Your task to perform on an android device: Go to privacy settings Image 0: 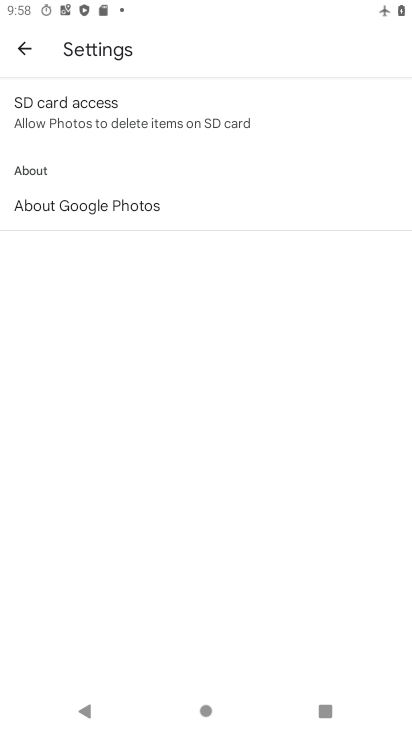
Step 0: press home button
Your task to perform on an android device: Go to privacy settings Image 1: 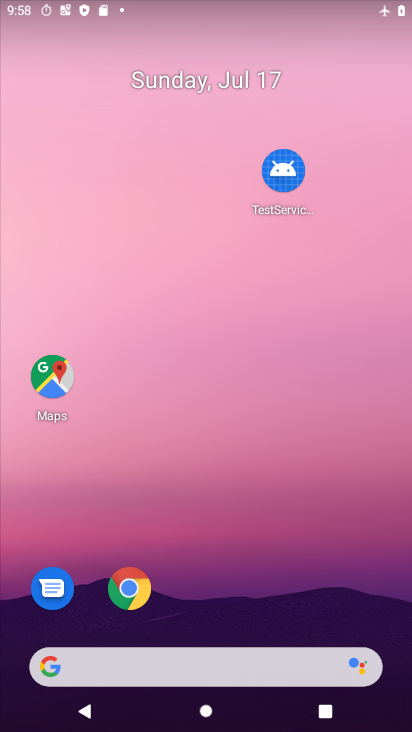
Step 1: drag from (301, 656) to (305, 333)
Your task to perform on an android device: Go to privacy settings Image 2: 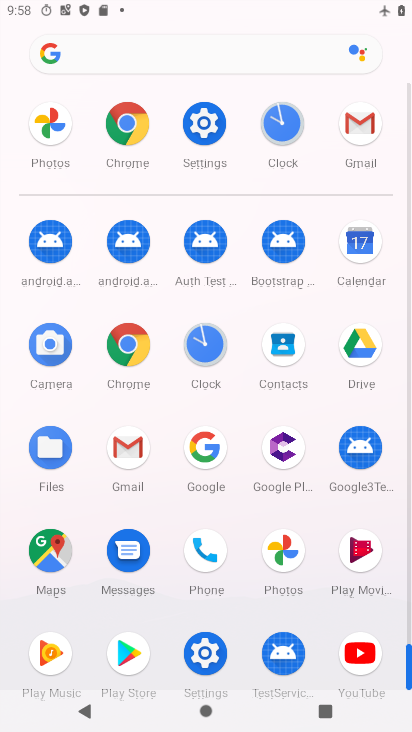
Step 2: click (215, 155)
Your task to perform on an android device: Go to privacy settings Image 3: 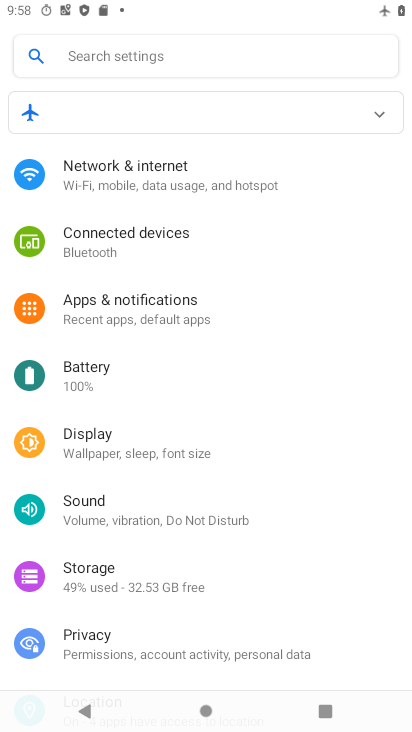
Step 3: drag from (175, 501) to (191, 323)
Your task to perform on an android device: Go to privacy settings Image 4: 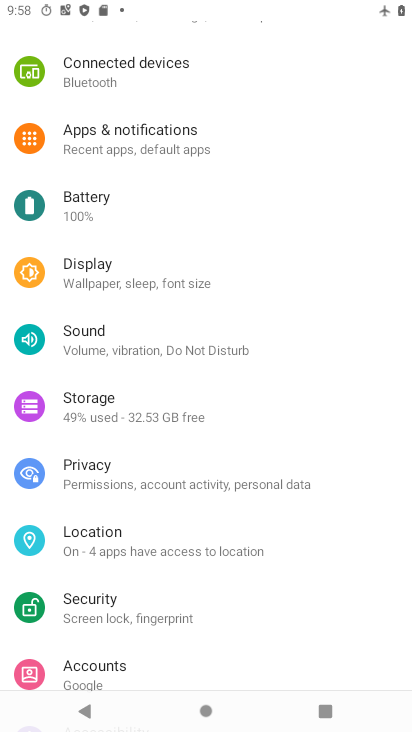
Step 4: click (177, 470)
Your task to perform on an android device: Go to privacy settings Image 5: 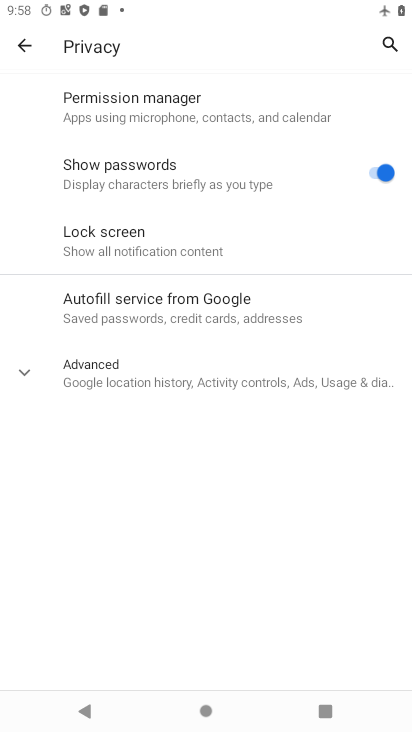
Step 5: task complete